Your task to perform on an android device: toggle wifi Image 0: 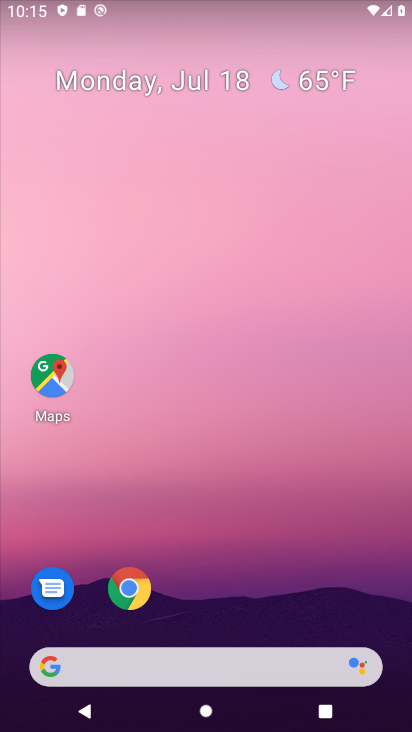
Step 0: press home button
Your task to perform on an android device: toggle wifi Image 1: 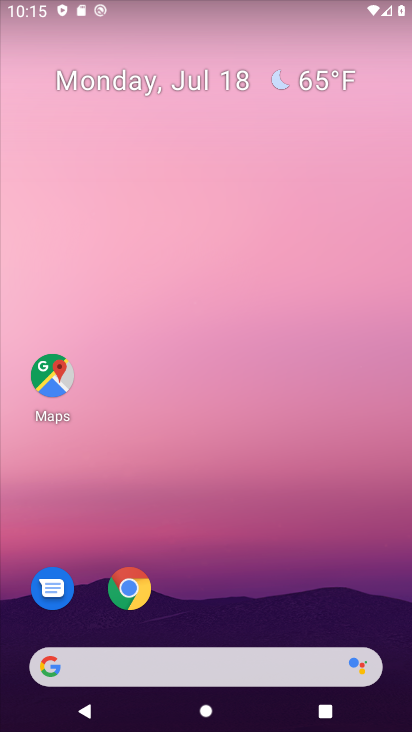
Step 1: drag from (274, 615) to (269, 70)
Your task to perform on an android device: toggle wifi Image 2: 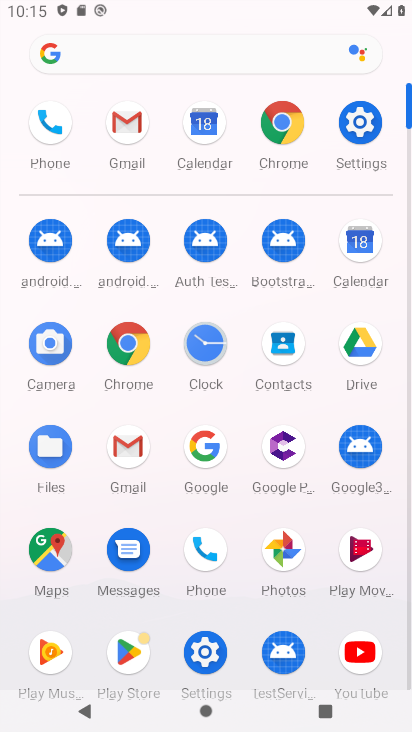
Step 2: click (365, 119)
Your task to perform on an android device: toggle wifi Image 3: 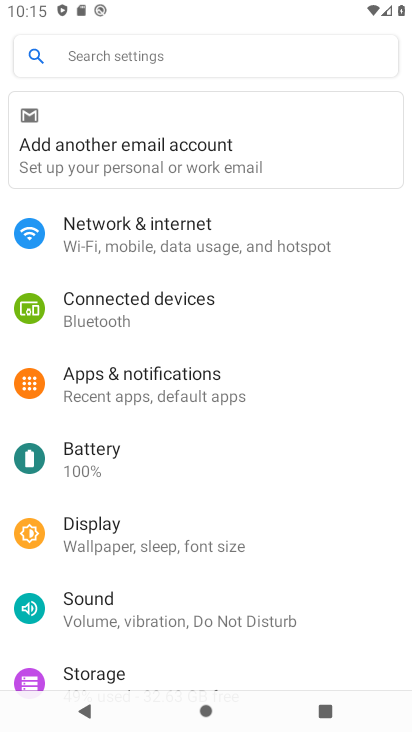
Step 3: click (166, 230)
Your task to perform on an android device: toggle wifi Image 4: 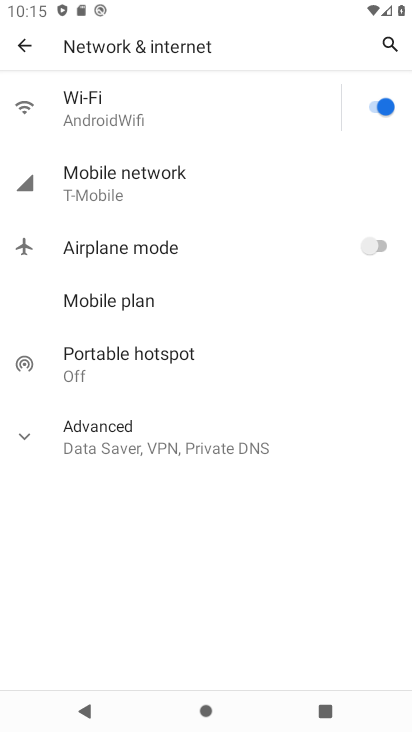
Step 4: click (387, 102)
Your task to perform on an android device: toggle wifi Image 5: 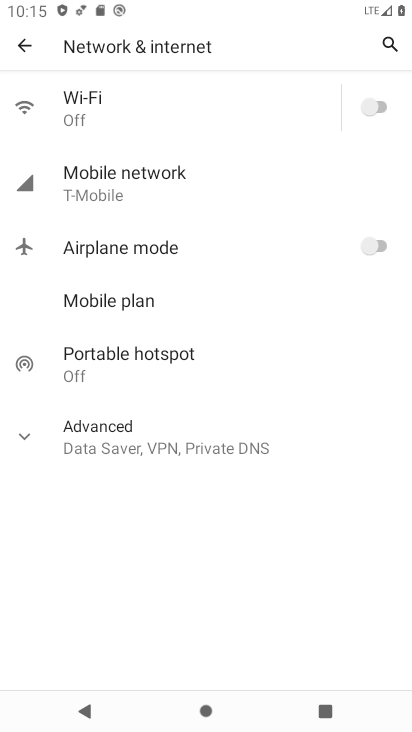
Step 5: task complete